Your task to perform on an android device: Search for macbook pro on amazon, select the first entry, and add it to the cart. Image 0: 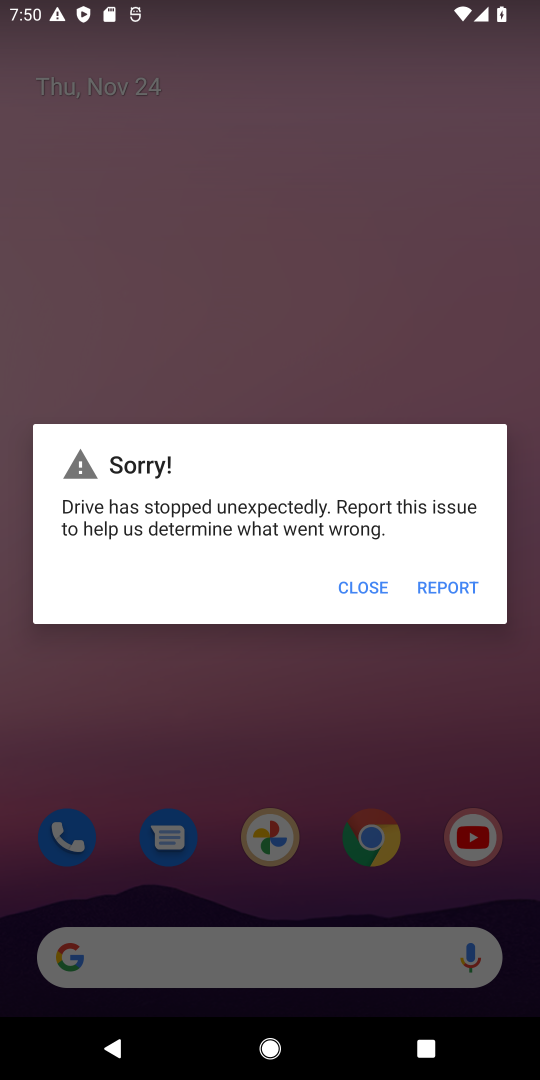
Step 0: press home button
Your task to perform on an android device: Search for macbook pro on amazon, select the first entry, and add it to the cart. Image 1: 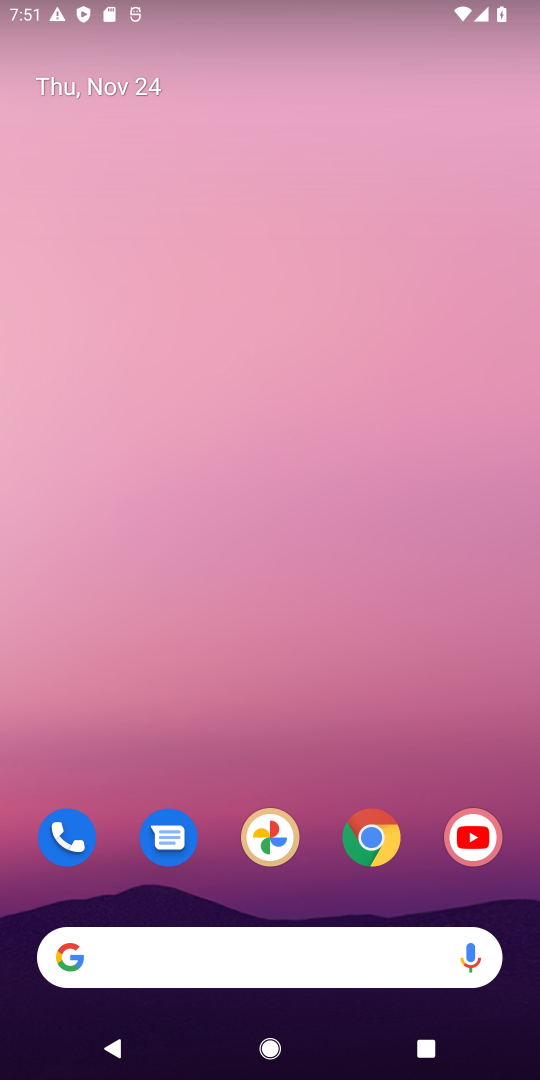
Step 1: click (366, 848)
Your task to perform on an android device: Search for macbook pro on amazon, select the first entry, and add it to the cart. Image 2: 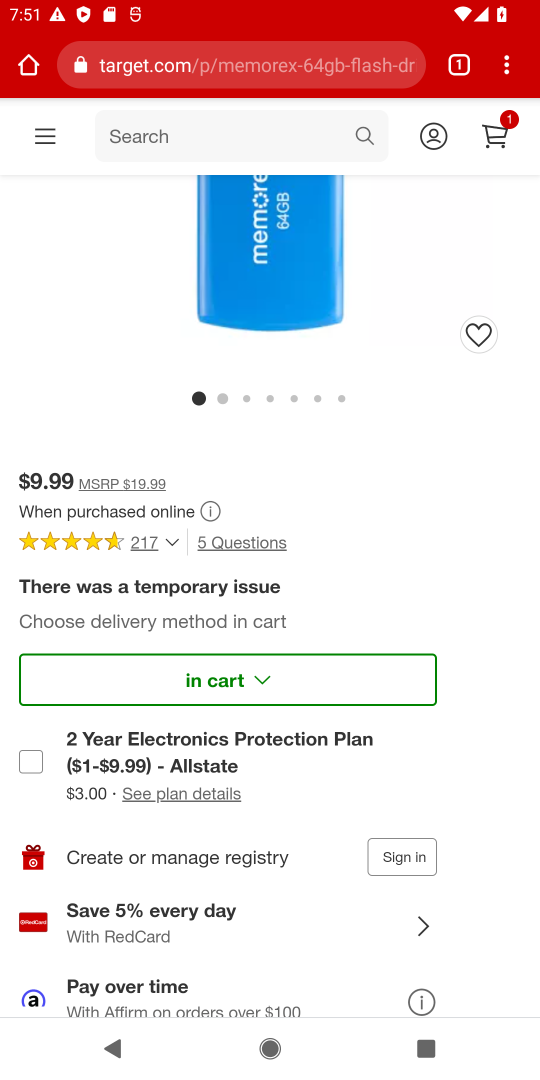
Step 2: click (310, 78)
Your task to perform on an android device: Search for macbook pro on amazon, select the first entry, and add it to the cart. Image 3: 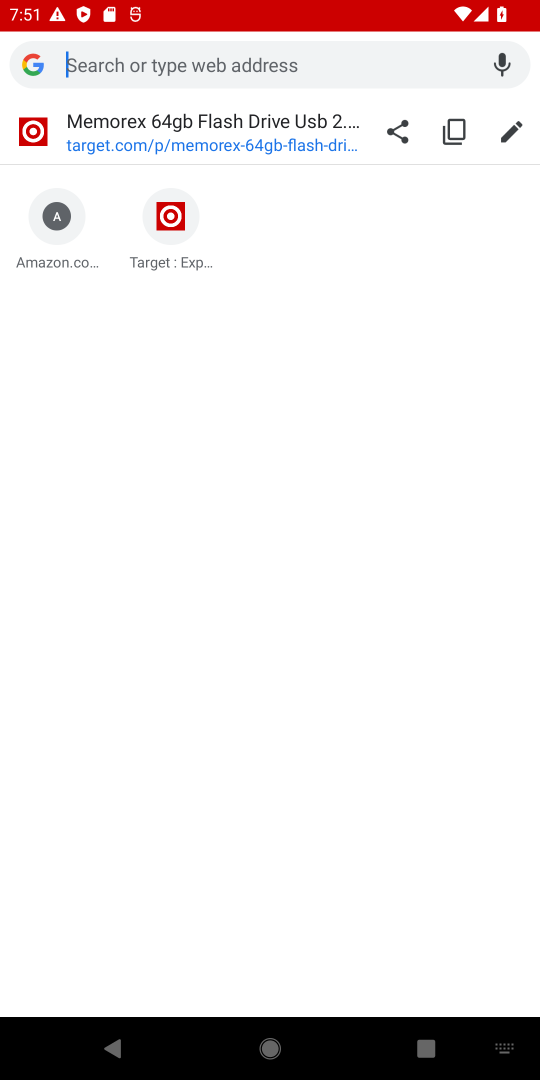
Step 3: type "amazon"
Your task to perform on an android device: Search for macbook pro on amazon, select the first entry, and add it to the cart. Image 4: 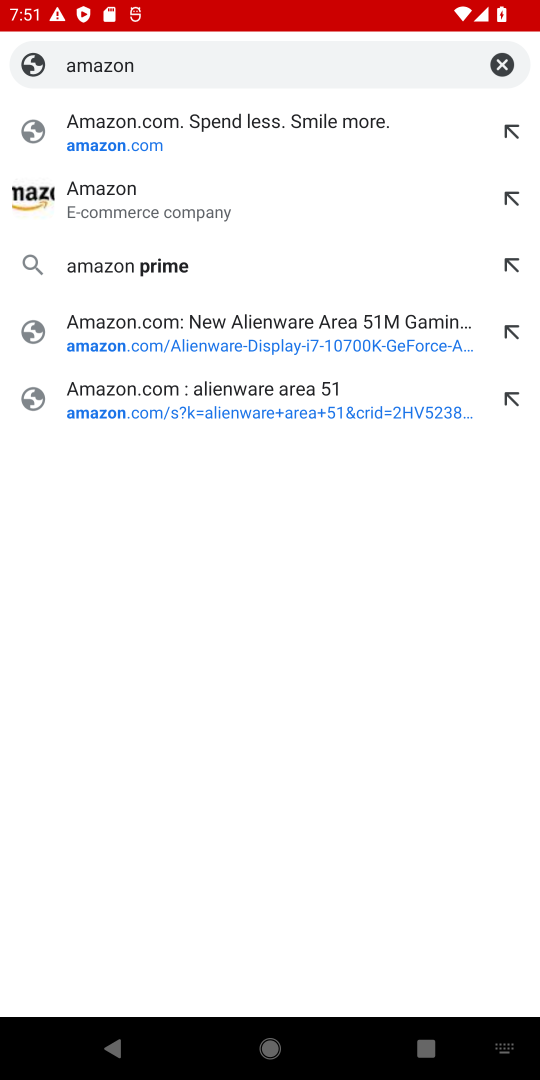
Step 4: click (159, 142)
Your task to perform on an android device: Search for macbook pro on amazon, select the first entry, and add it to the cart. Image 5: 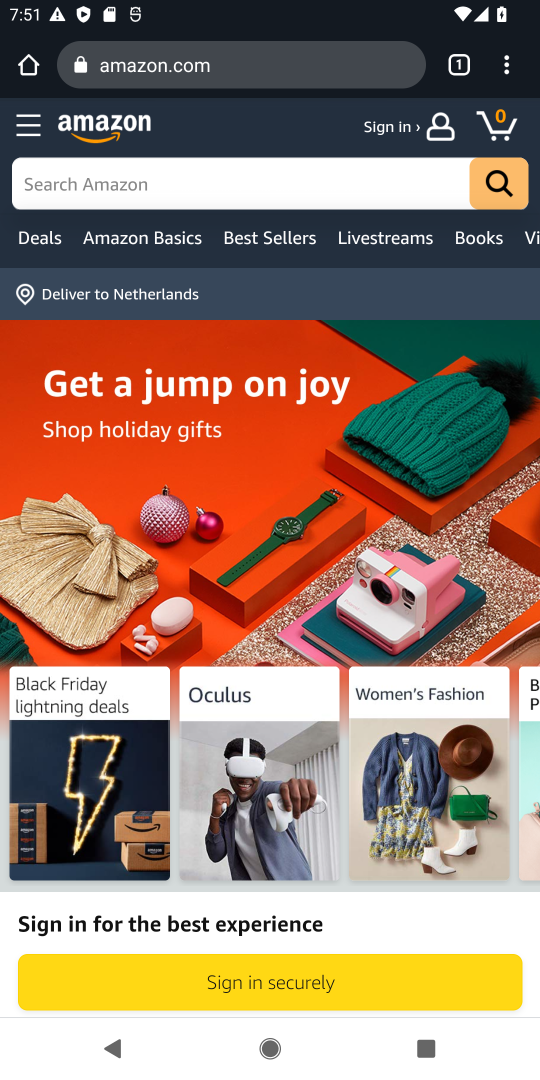
Step 5: click (183, 172)
Your task to perform on an android device: Search for macbook pro on amazon, select the first entry, and add it to the cart. Image 6: 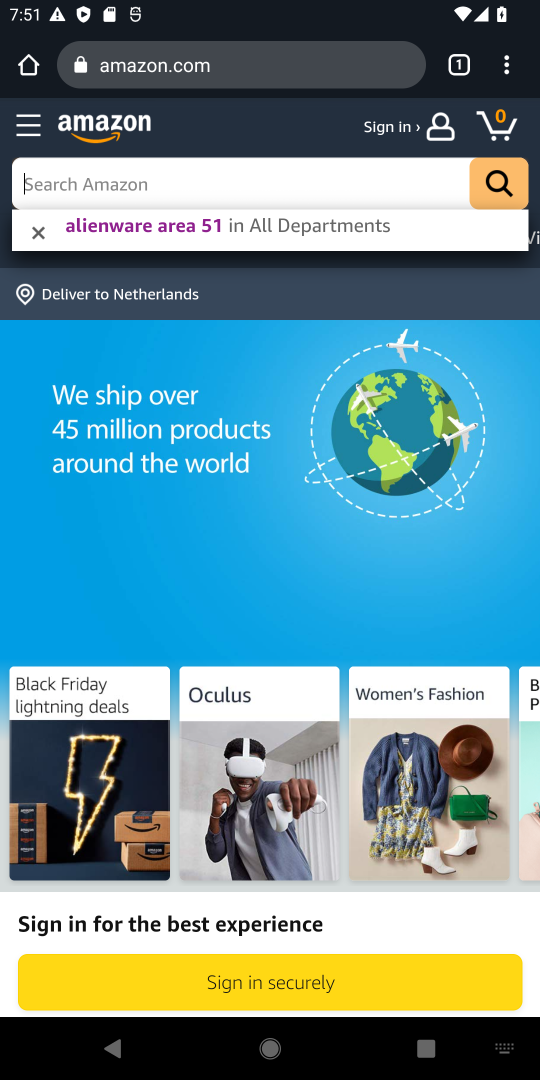
Step 6: type "macbook pro"
Your task to perform on an android device: Search for macbook pro on amazon, select the first entry, and add it to the cart. Image 7: 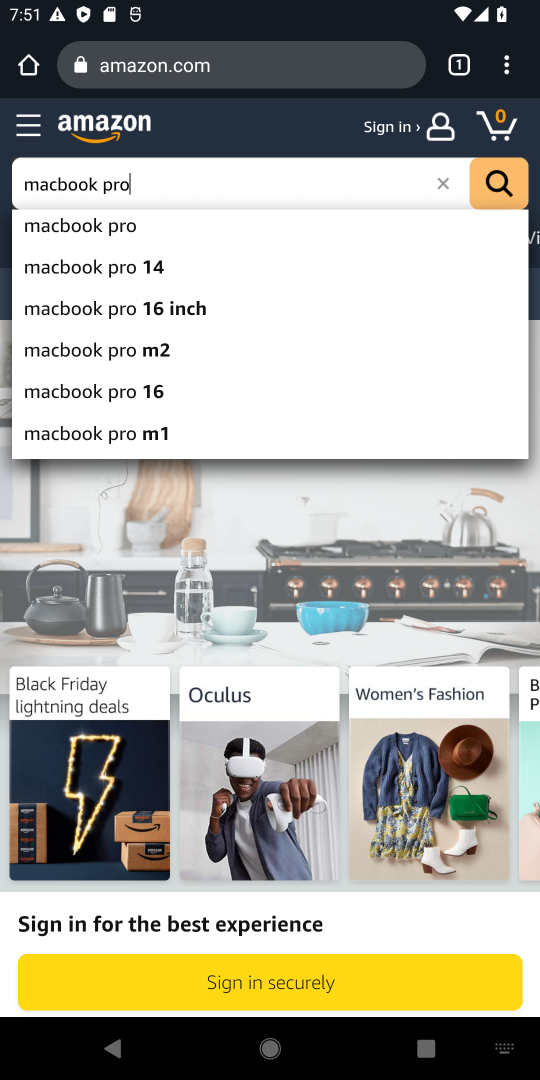
Step 7: click (89, 222)
Your task to perform on an android device: Search for macbook pro on amazon, select the first entry, and add it to the cart. Image 8: 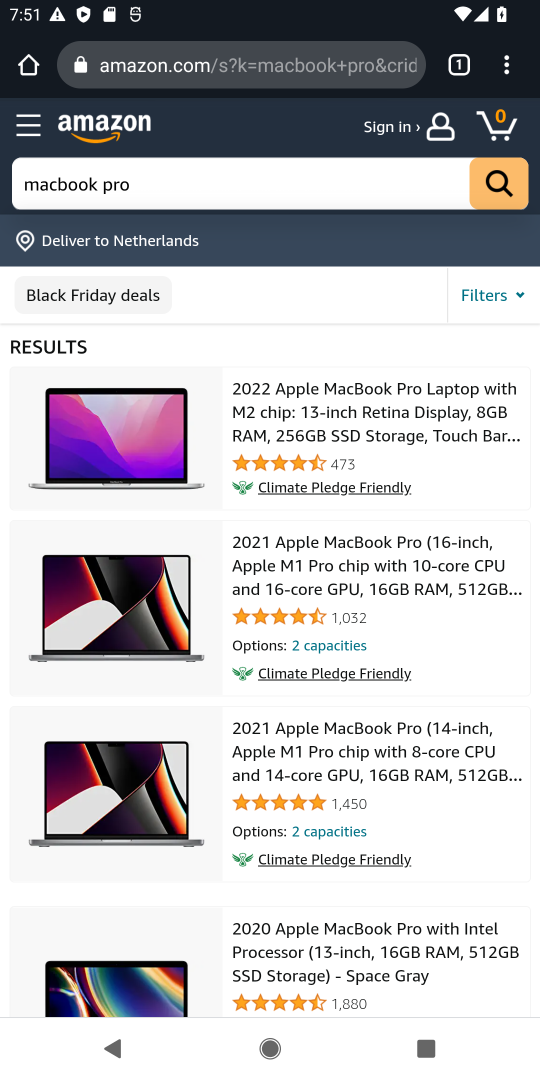
Step 8: click (309, 410)
Your task to perform on an android device: Search for macbook pro on amazon, select the first entry, and add it to the cart. Image 9: 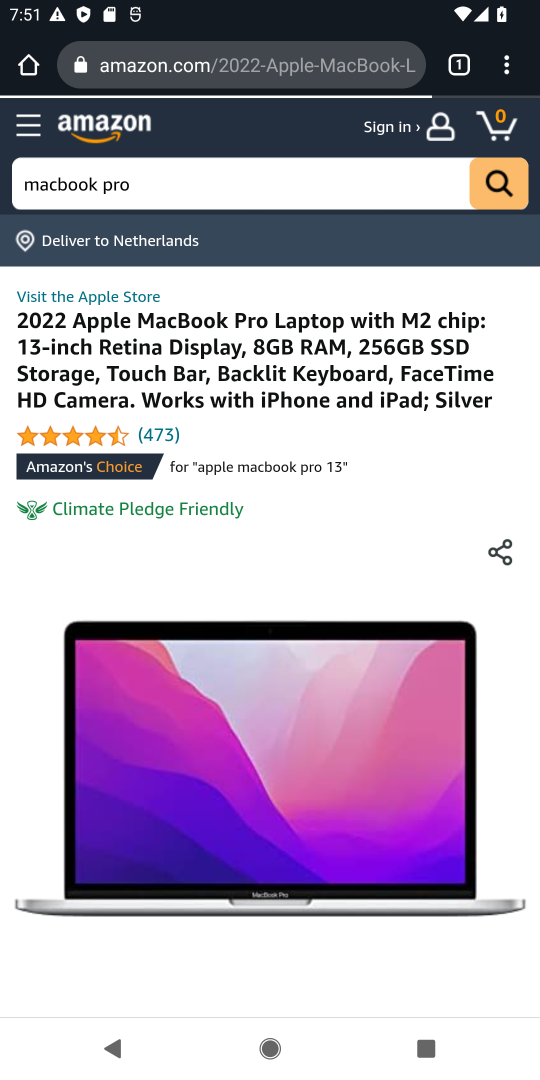
Step 9: drag from (284, 760) to (304, 237)
Your task to perform on an android device: Search for macbook pro on amazon, select the first entry, and add it to the cart. Image 10: 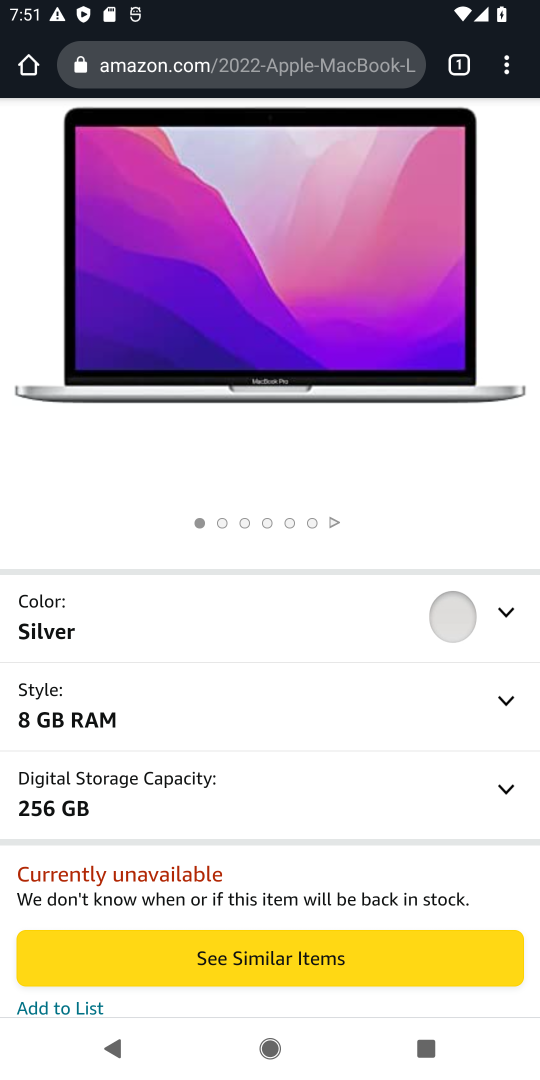
Step 10: drag from (284, 795) to (274, 566)
Your task to perform on an android device: Search for macbook pro on amazon, select the first entry, and add it to the cart. Image 11: 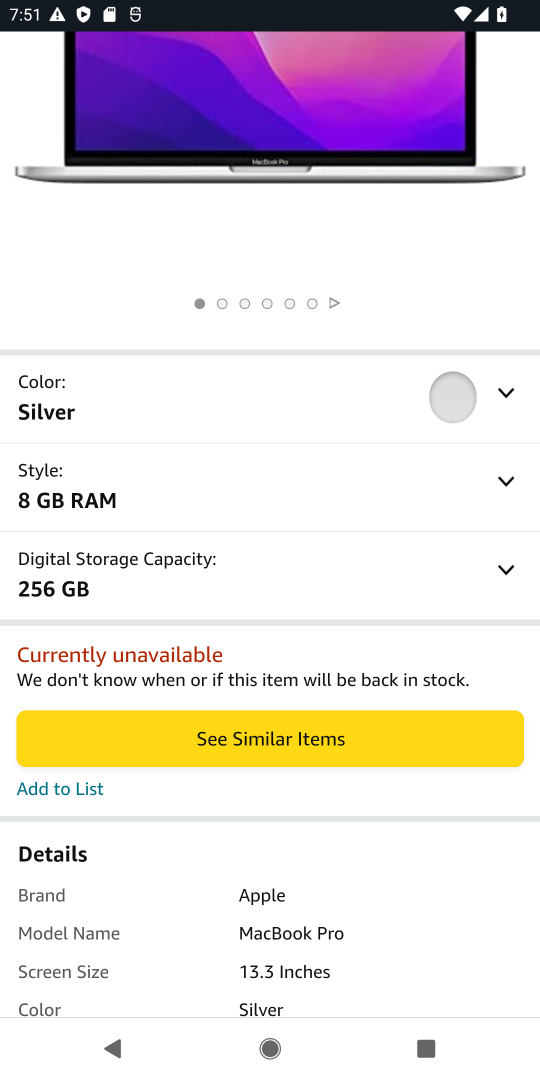
Step 11: click (56, 788)
Your task to perform on an android device: Search for macbook pro on amazon, select the first entry, and add it to the cart. Image 12: 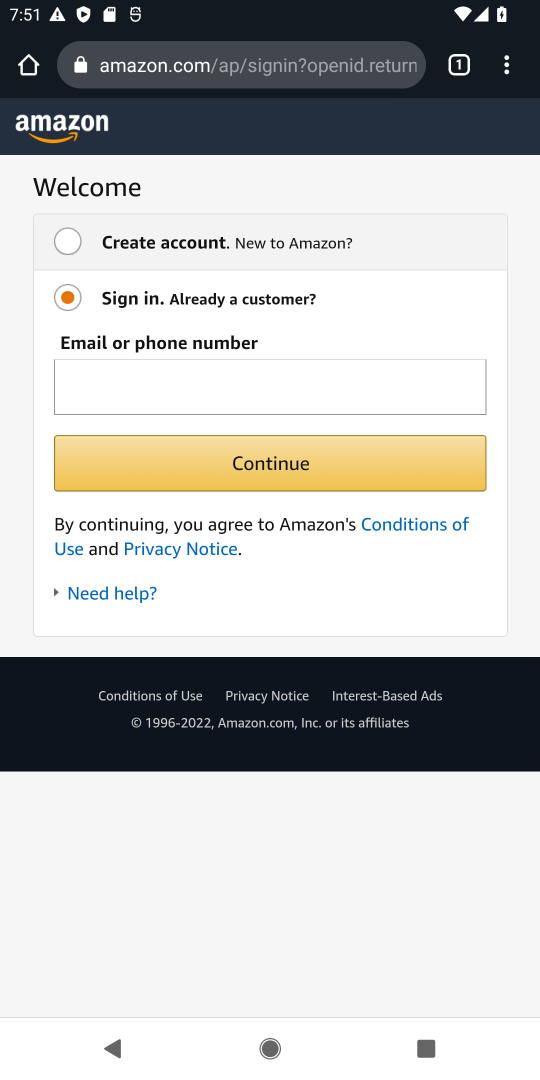
Step 12: press back button
Your task to perform on an android device: Search for macbook pro on amazon, select the first entry, and add it to the cart. Image 13: 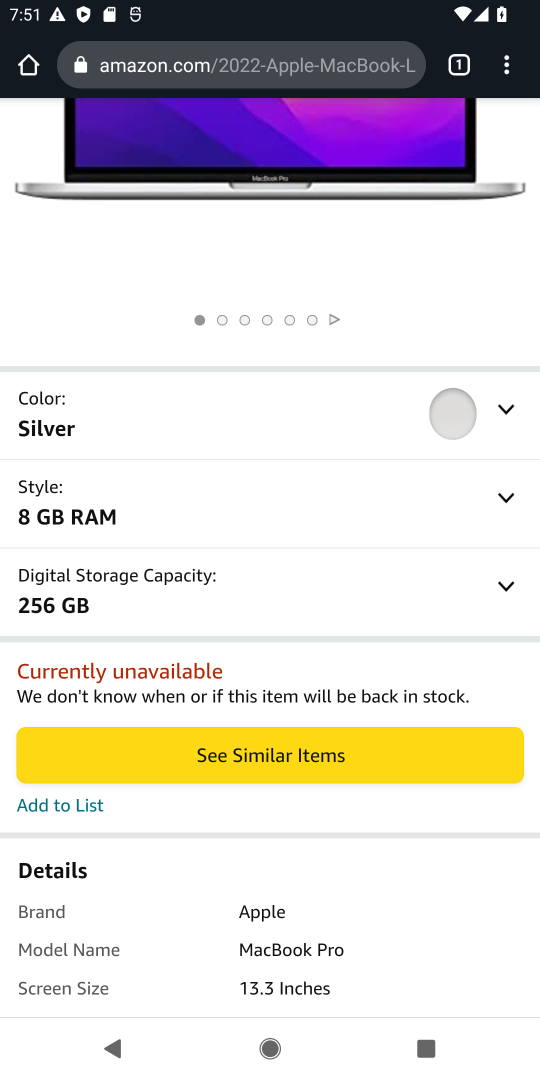
Step 13: click (262, 768)
Your task to perform on an android device: Search for macbook pro on amazon, select the first entry, and add it to the cart. Image 14: 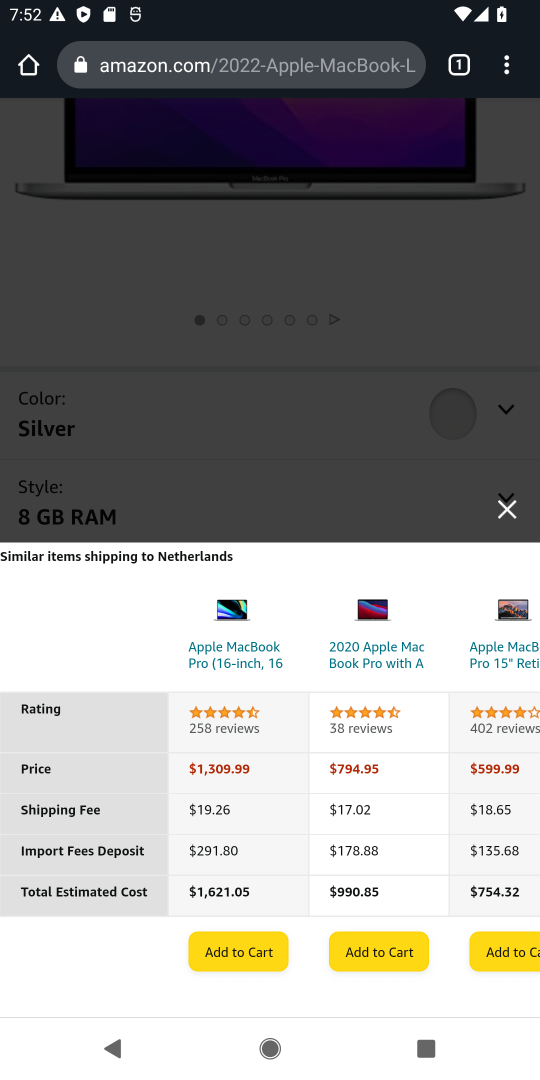
Step 14: click (245, 956)
Your task to perform on an android device: Search for macbook pro on amazon, select the first entry, and add it to the cart. Image 15: 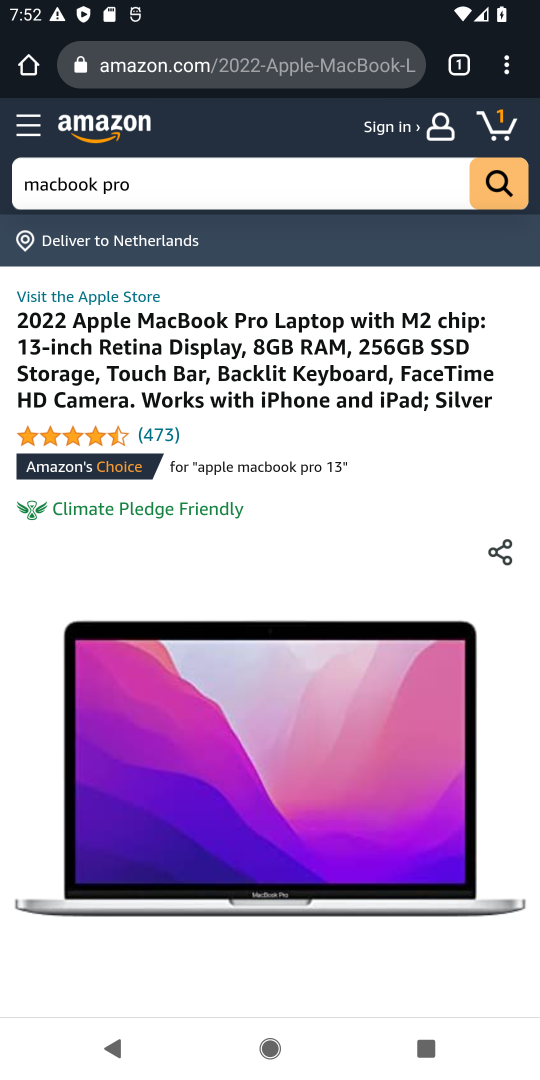
Step 15: task complete